Your task to perform on an android device: Go to Android settings Image 0: 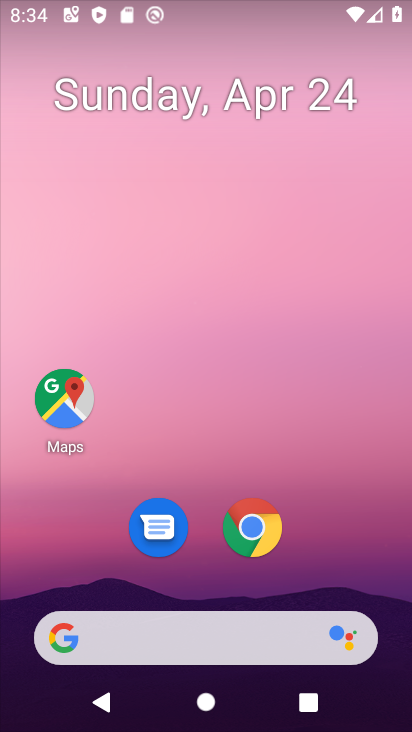
Step 0: drag from (316, 555) to (306, 139)
Your task to perform on an android device: Go to Android settings Image 1: 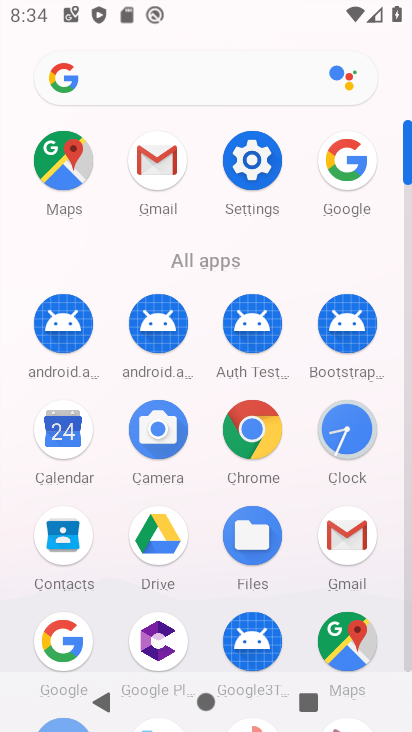
Step 1: click (244, 163)
Your task to perform on an android device: Go to Android settings Image 2: 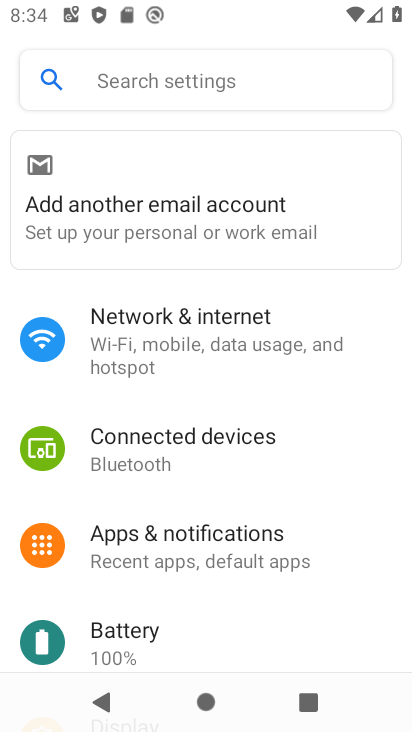
Step 2: drag from (303, 572) to (284, 200)
Your task to perform on an android device: Go to Android settings Image 3: 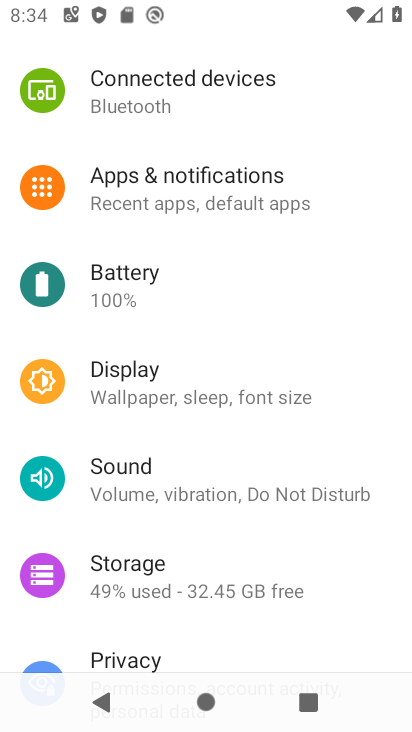
Step 3: drag from (283, 597) to (300, 232)
Your task to perform on an android device: Go to Android settings Image 4: 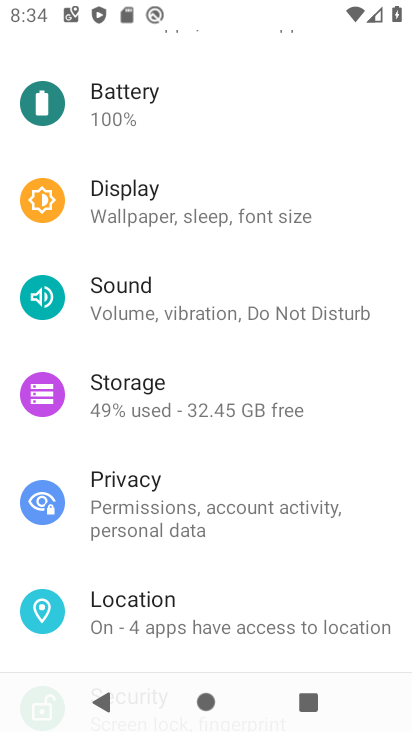
Step 4: drag from (303, 586) to (301, 47)
Your task to perform on an android device: Go to Android settings Image 5: 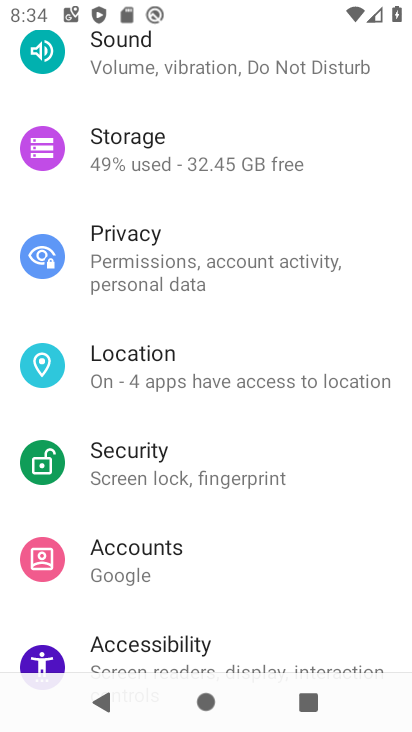
Step 5: drag from (286, 573) to (329, 144)
Your task to perform on an android device: Go to Android settings Image 6: 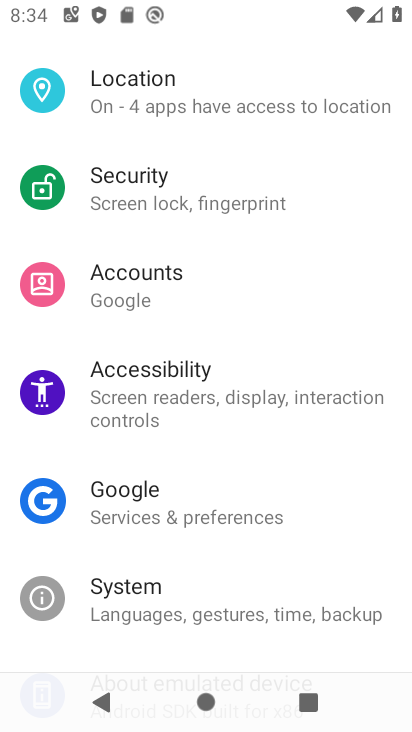
Step 6: drag from (256, 532) to (290, 216)
Your task to perform on an android device: Go to Android settings Image 7: 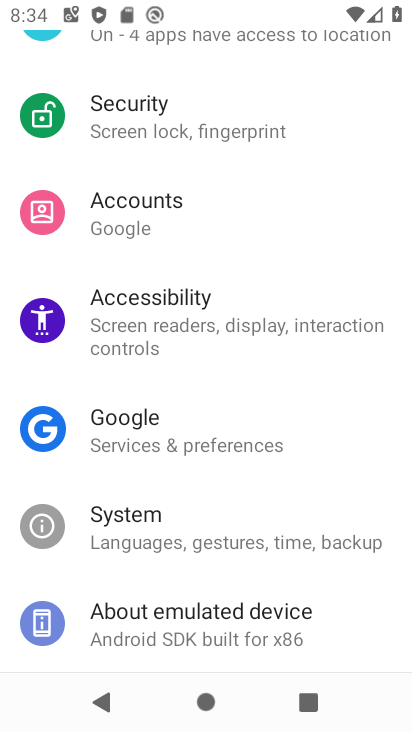
Step 7: click (261, 616)
Your task to perform on an android device: Go to Android settings Image 8: 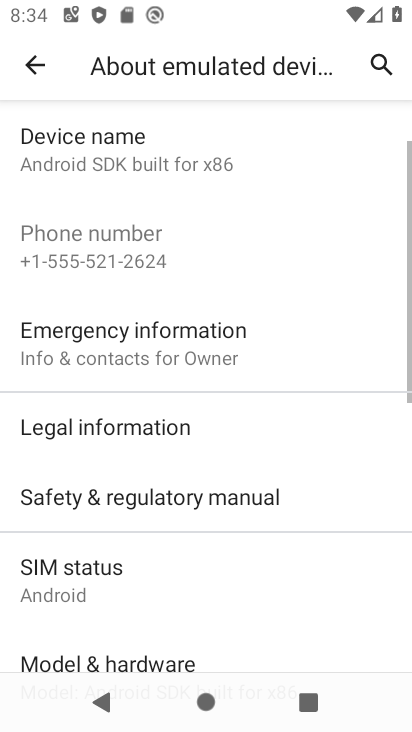
Step 8: drag from (278, 603) to (314, 173)
Your task to perform on an android device: Go to Android settings Image 9: 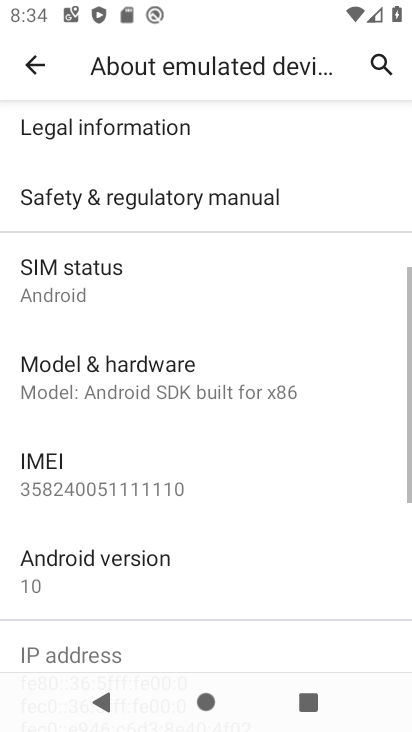
Step 9: click (179, 582)
Your task to perform on an android device: Go to Android settings Image 10: 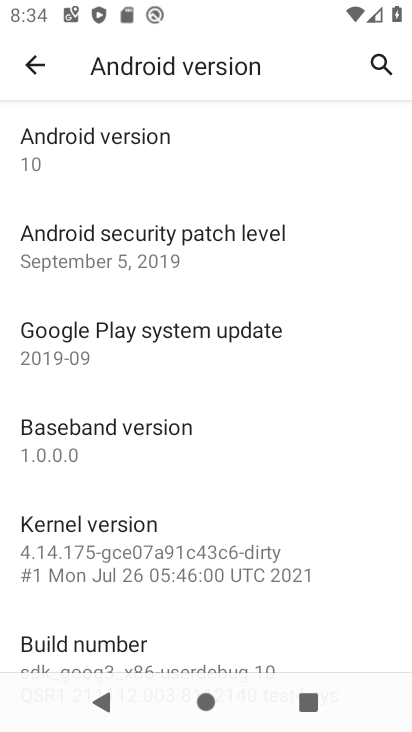
Step 10: task complete